Your task to perform on an android device: Open display settings Image 0: 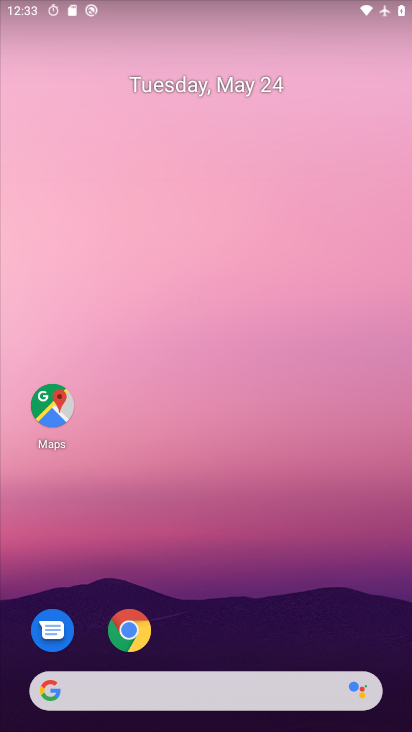
Step 0: drag from (234, 619) to (274, 116)
Your task to perform on an android device: Open display settings Image 1: 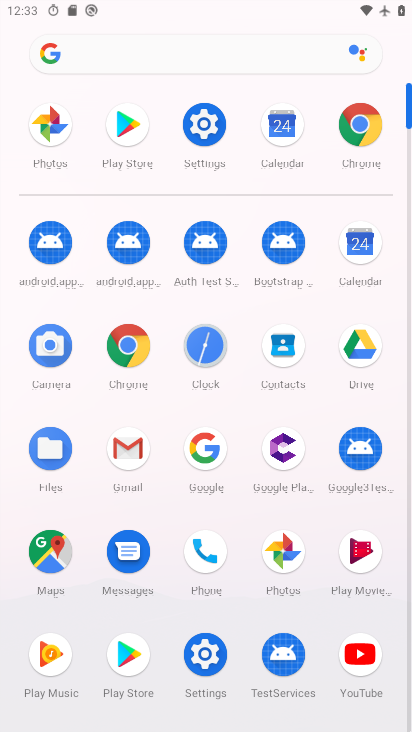
Step 1: click (203, 131)
Your task to perform on an android device: Open display settings Image 2: 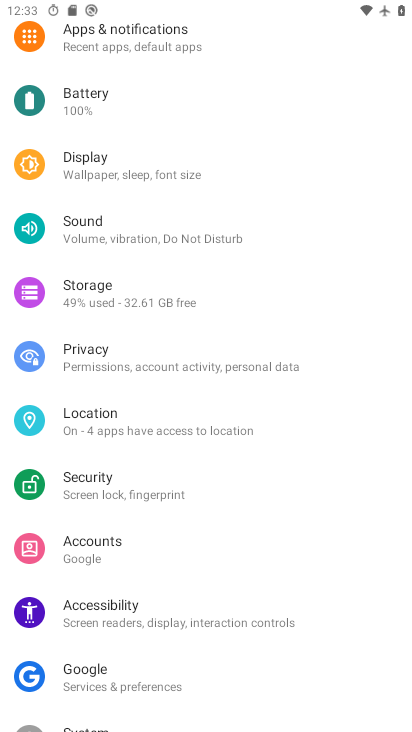
Step 2: click (159, 168)
Your task to perform on an android device: Open display settings Image 3: 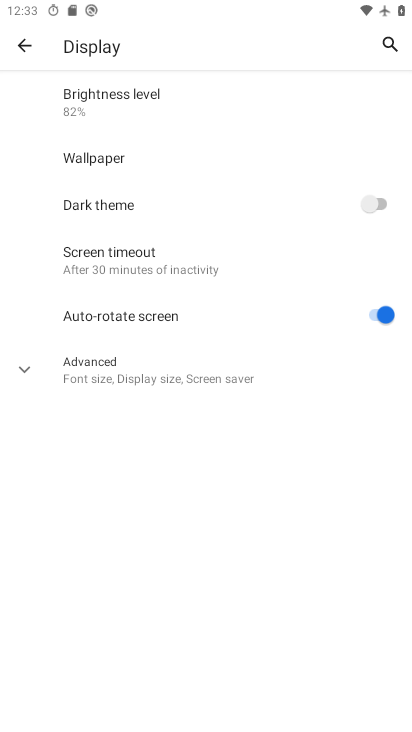
Step 3: task complete